Your task to perform on an android device: empty trash in google photos Image 0: 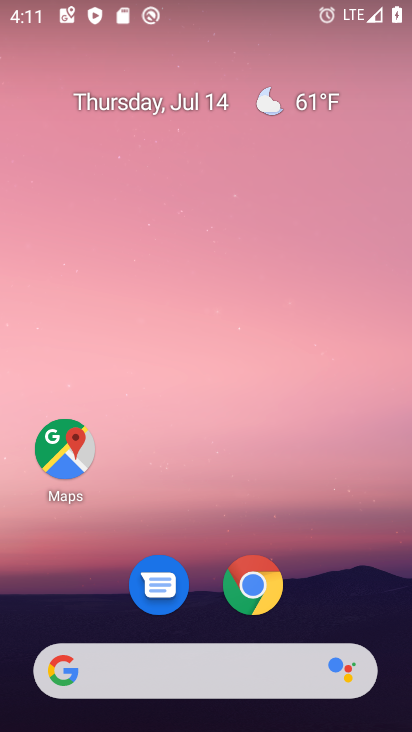
Step 0: drag from (321, 535) to (320, 26)
Your task to perform on an android device: empty trash in google photos Image 1: 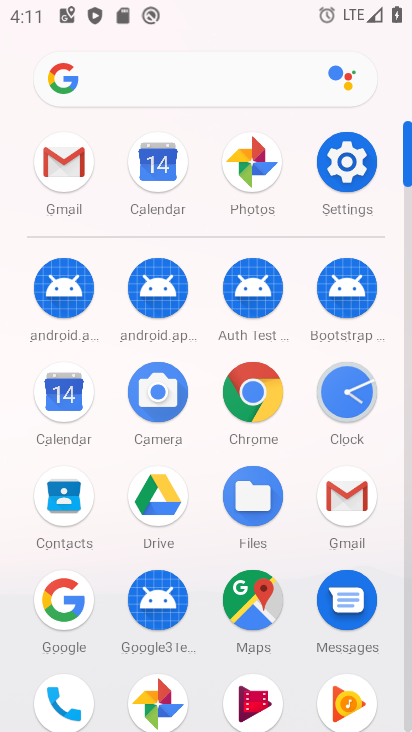
Step 1: click (258, 163)
Your task to perform on an android device: empty trash in google photos Image 2: 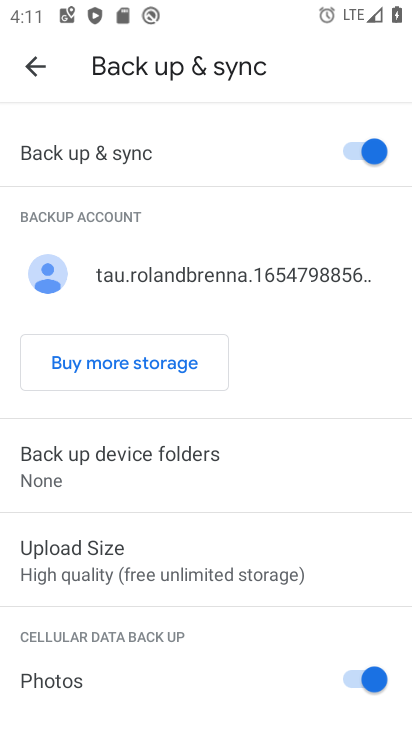
Step 2: click (36, 58)
Your task to perform on an android device: empty trash in google photos Image 3: 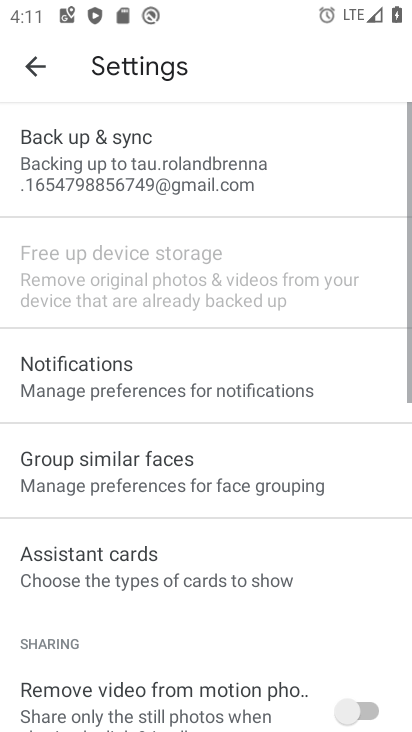
Step 3: click (36, 60)
Your task to perform on an android device: empty trash in google photos Image 4: 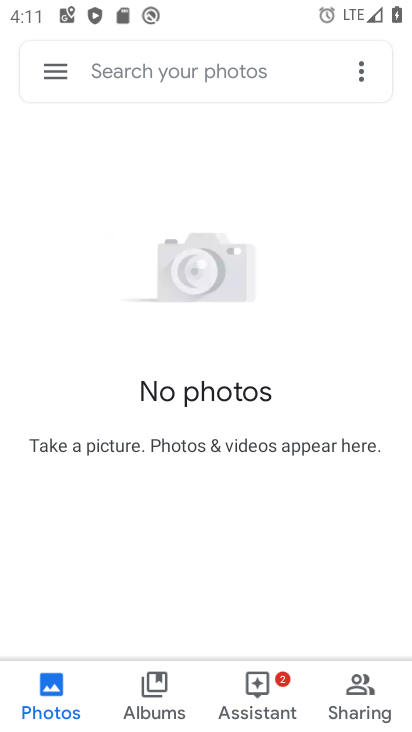
Step 4: click (50, 71)
Your task to perform on an android device: empty trash in google photos Image 5: 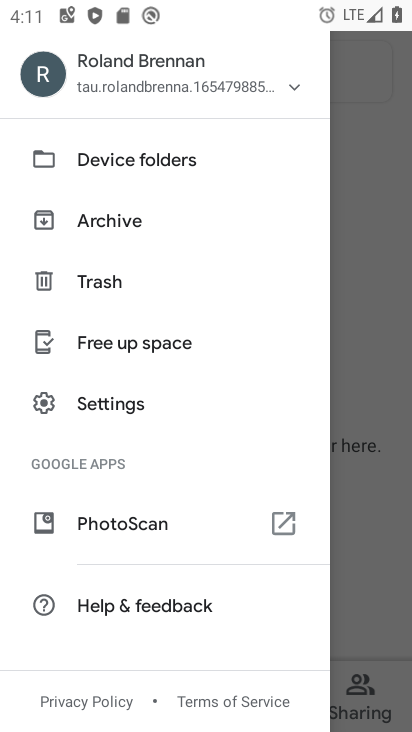
Step 5: click (88, 274)
Your task to perform on an android device: empty trash in google photos Image 6: 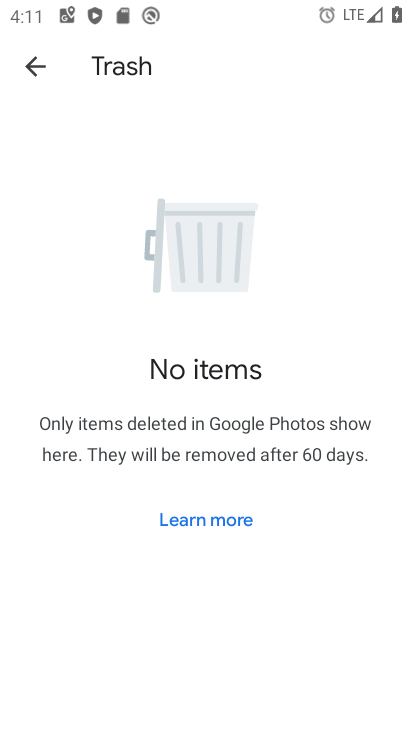
Step 6: task complete